Your task to perform on an android device: open app "Messenger Lite" (install if not already installed) and enter user name: "cataclysmic@outlook.com" and password: "victoriously" Image 0: 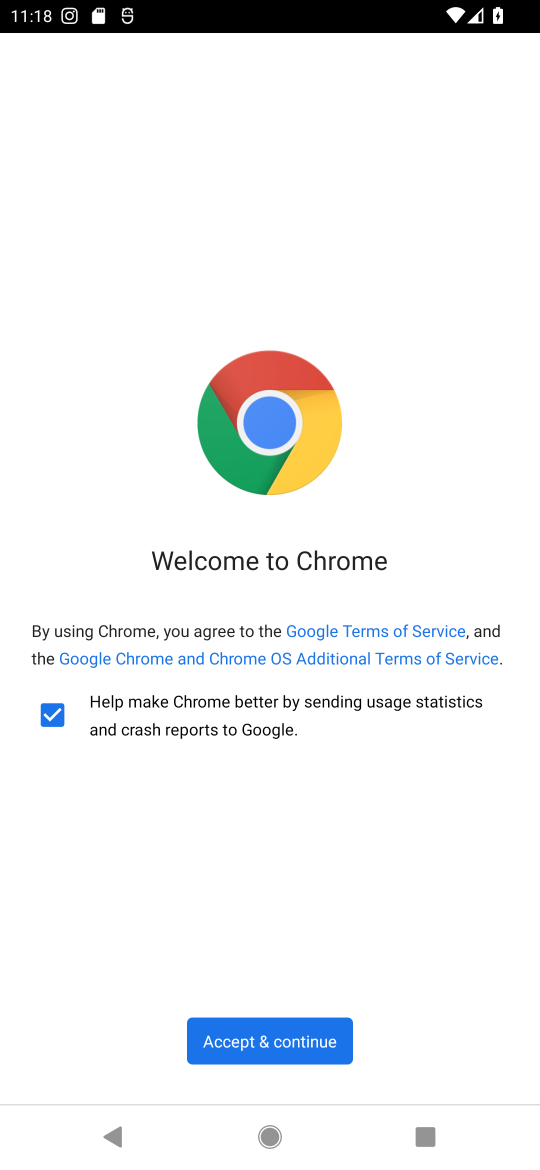
Step 0: press home button
Your task to perform on an android device: open app "Messenger Lite" (install if not already installed) and enter user name: "cataclysmic@outlook.com" and password: "victoriously" Image 1: 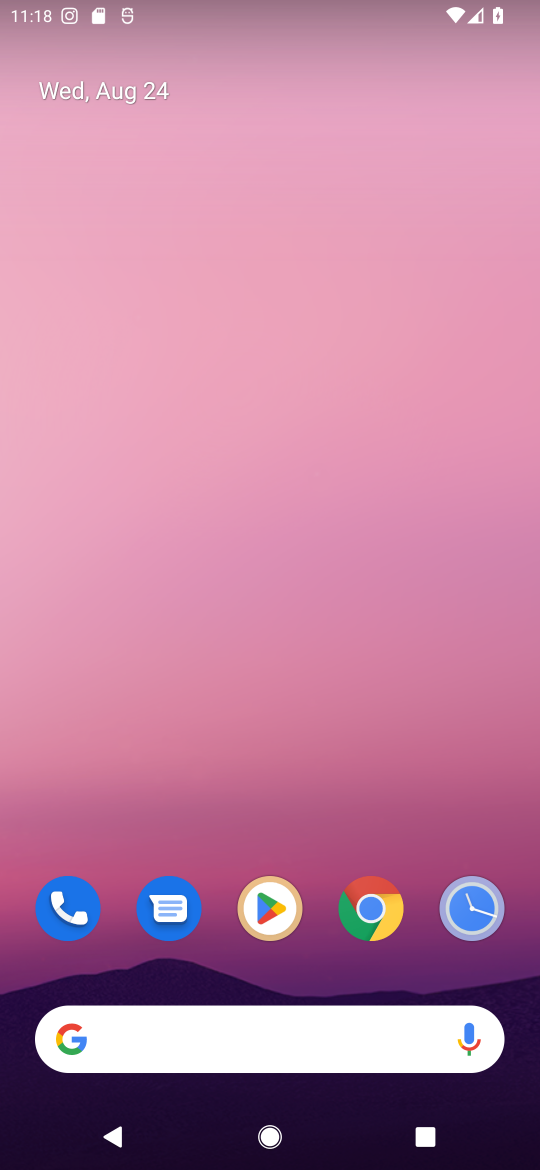
Step 1: drag from (323, 988) to (269, 160)
Your task to perform on an android device: open app "Messenger Lite" (install if not already installed) and enter user name: "cataclysmic@outlook.com" and password: "victoriously" Image 2: 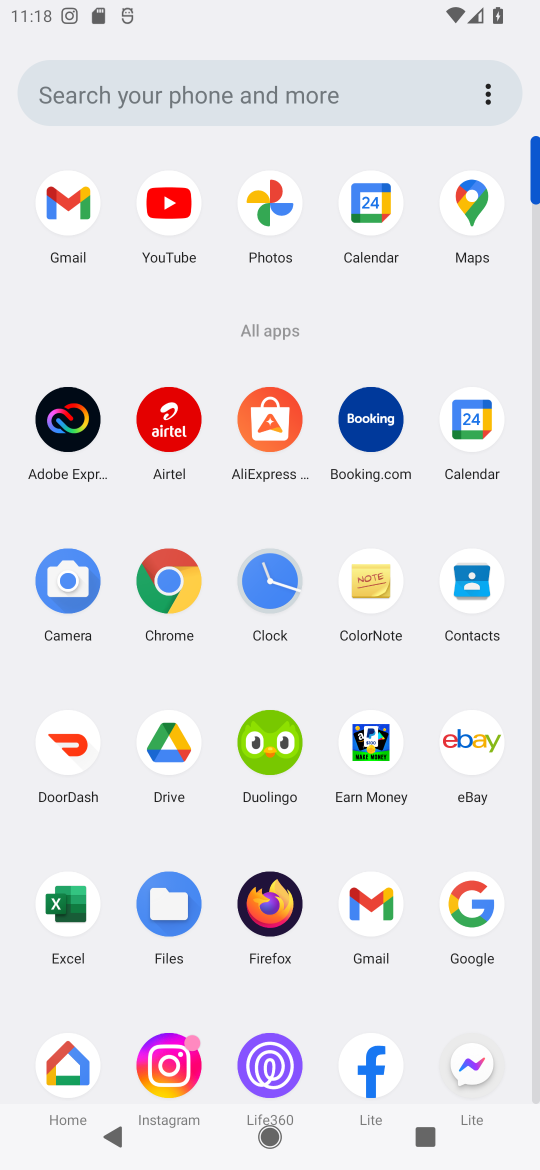
Step 2: click (469, 1055)
Your task to perform on an android device: open app "Messenger Lite" (install if not already installed) and enter user name: "cataclysmic@outlook.com" and password: "victoriously" Image 3: 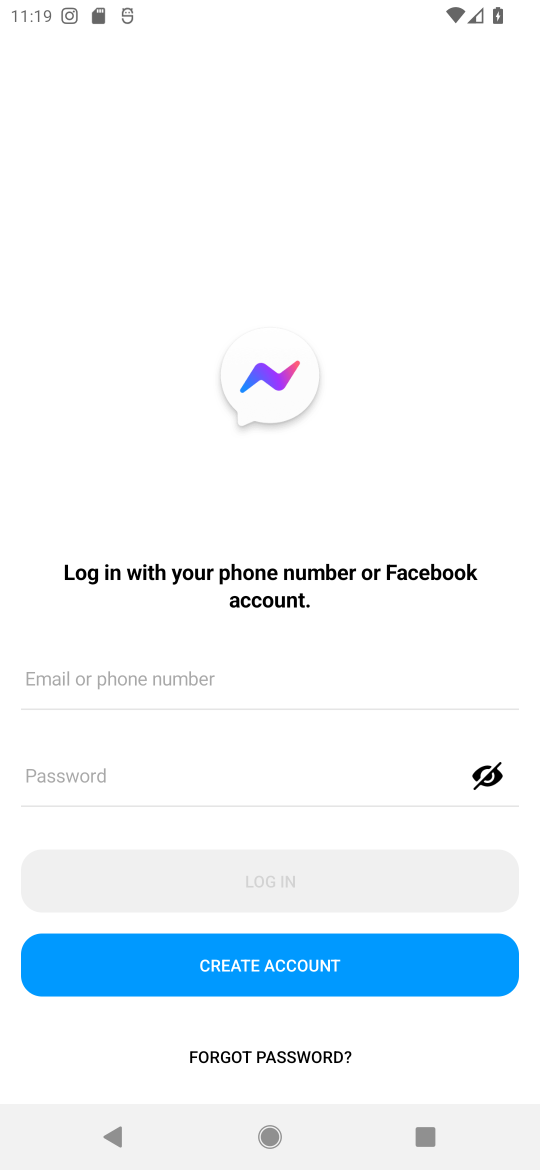
Step 3: click (159, 670)
Your task to perform on an android device: open app "Messenger Lite" (install if not already installed) and enter user name: "cataclysmic@outlook.com" and password: "victoriously" Image 4: 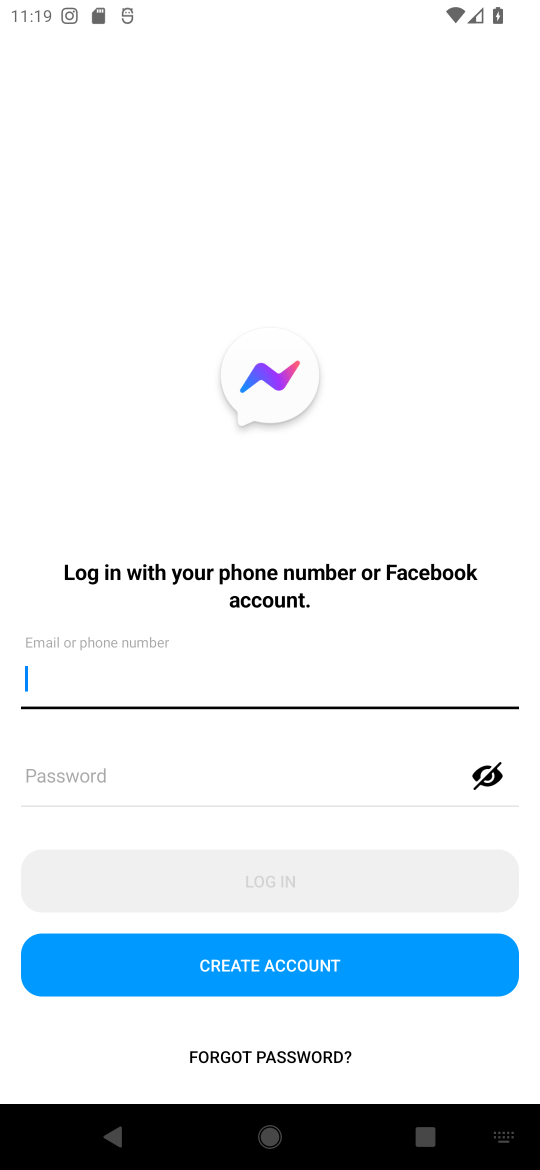
Step 4: type "cataclysmic@outlook.com"
Your task to perform on an android device: open app "Messenger Lite" (install if not already installed) and enter user name: "cataclysmic@outlook.com" and password: "victoriously" Image 5: 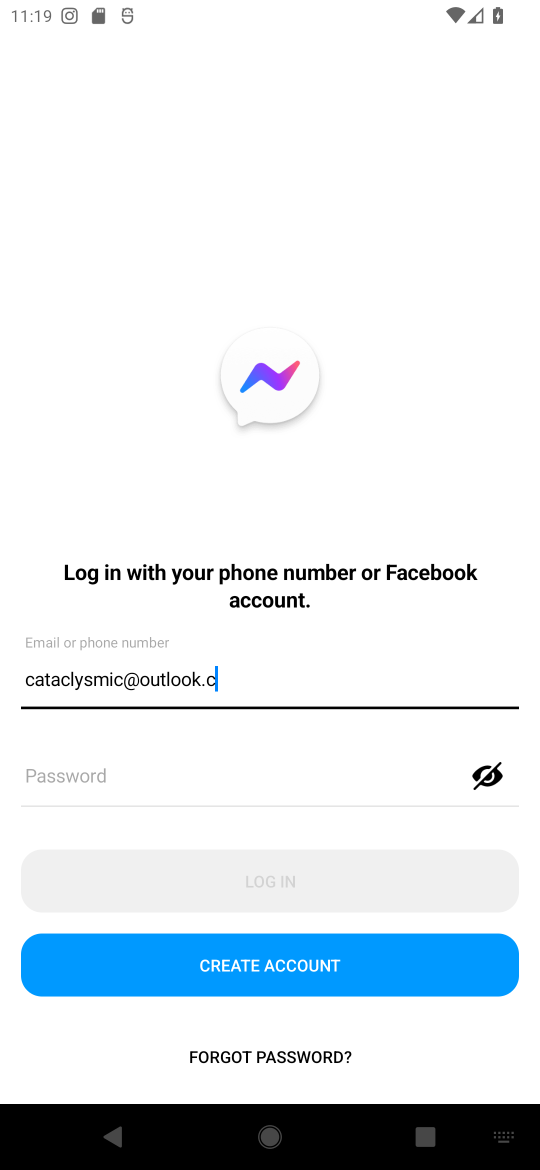
Step 5: click (176, 787)
Your task to perform on an android device: open app "Messenger Lite" (install if not already installed) and enter user name: "cataclysmic@outlook.com" and password: "victoriously" Image 6: 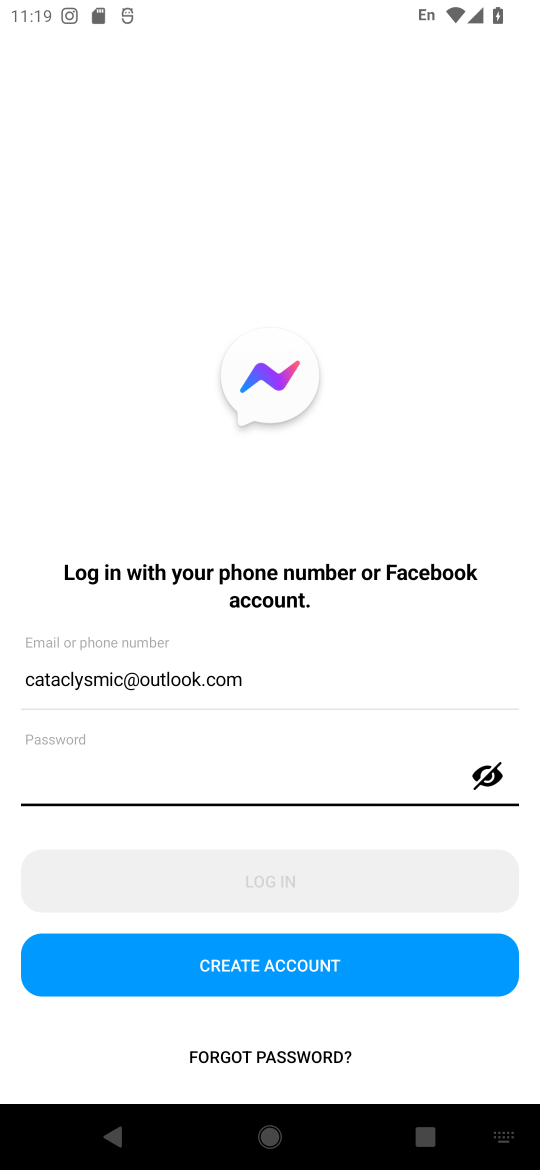
Step 6: type "victoriously"
Your task to perform on an android device: open app "Messenger Lite" (install if not already installed) and enter user name: "cataclysmic@outlook.com" and password: "victoriously" Image 7: 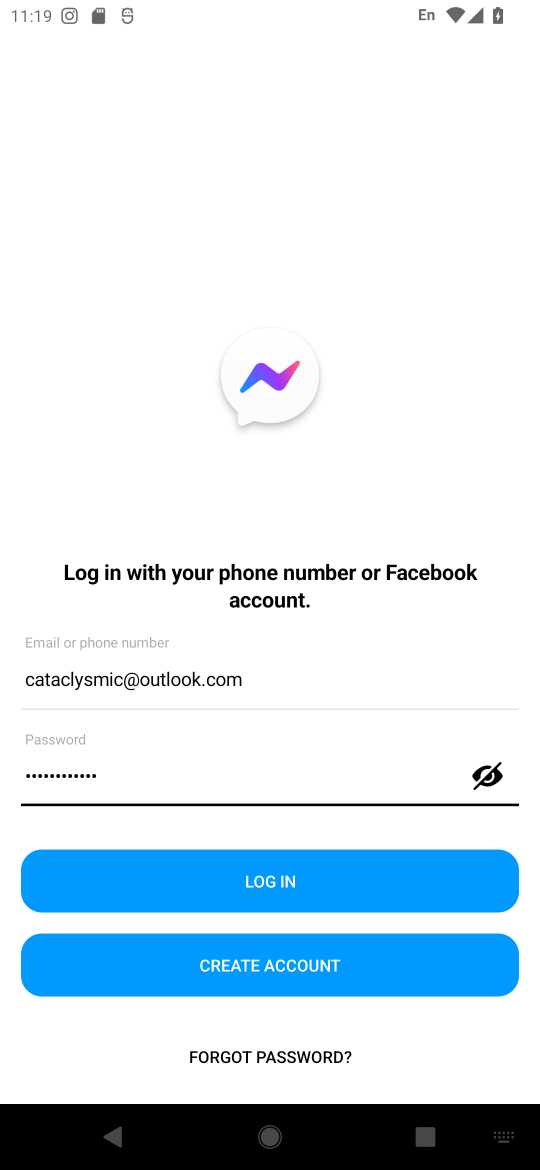
Step 7: task complete